Your task to perform on an android device: star an email in the gmail app Image 0: 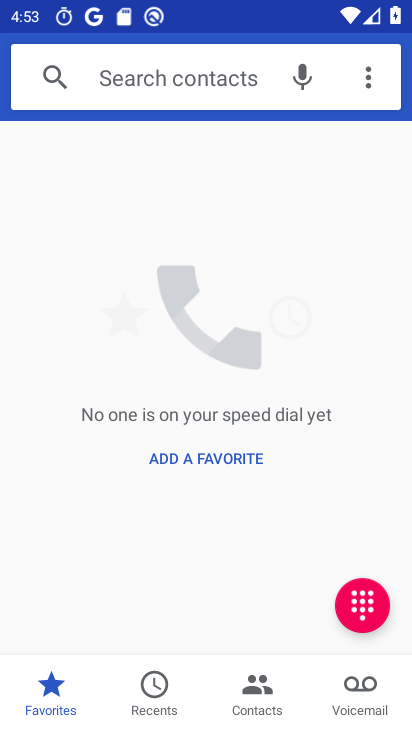
Step 0: press home button
Your task to perform on an android device: star an email in the gmail app Image 1: 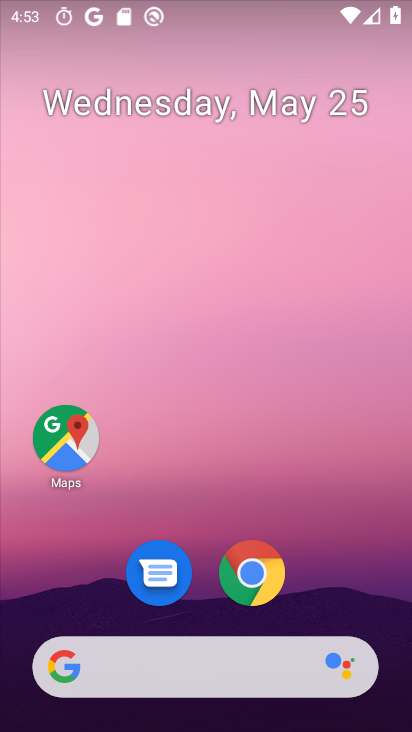
Step 1: drag from (219, 720) to (215, 133)
Your task to perform on an android device: star an email in the gmail app Image 2: 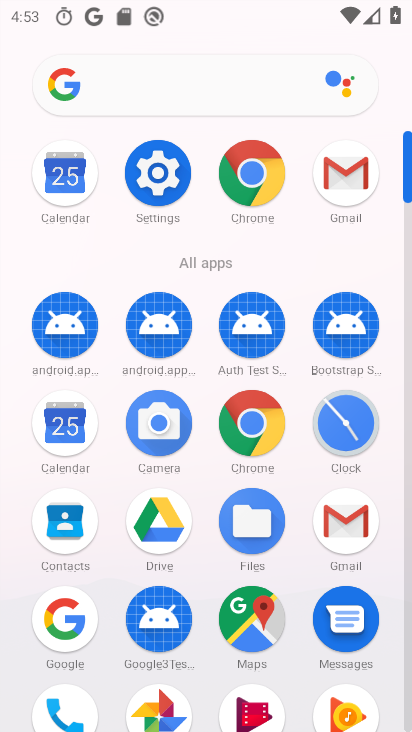
Step 2: click (354, 175)
Your task to perform on an android device: star an email in the gmail app Image 3: 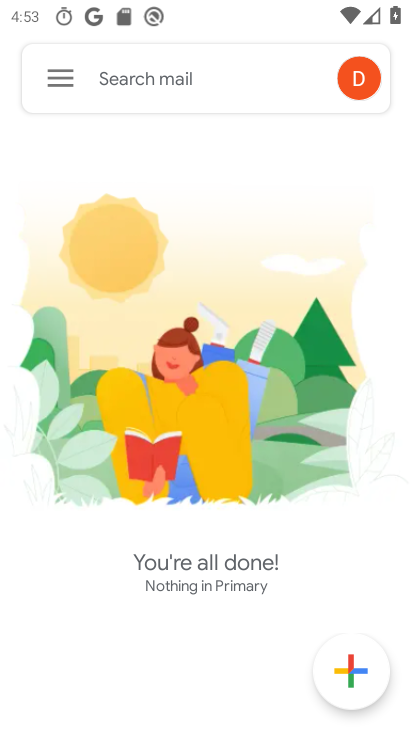
Step 3: click (61, 78)
Your task to perform on an android device: star an email in the gmail app Image 4: 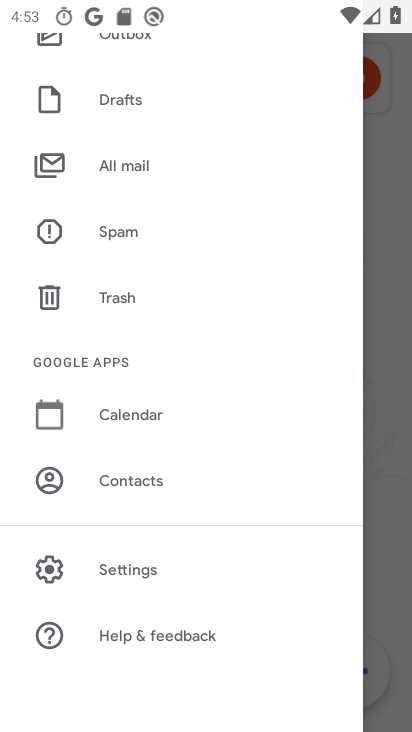
Step 4: drag from (192, 233) to (212, 669)
Your task to perform on an android device: star an email in the gmail app Image 5: 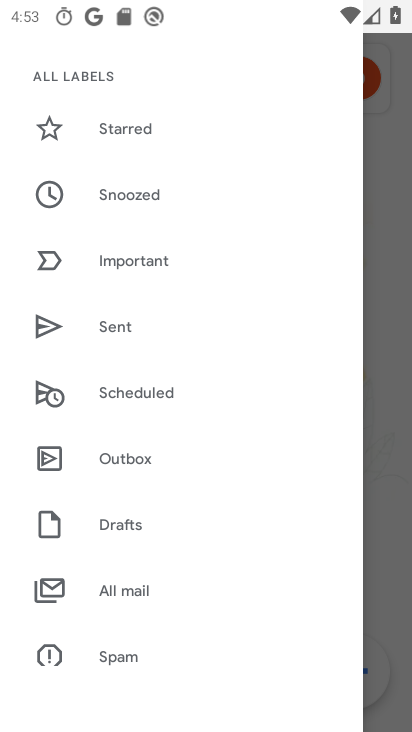
Step 5: drag from (181, 281) to (185, 625)
Your task to perform on an android device: star an email in the gmail app Image 6: 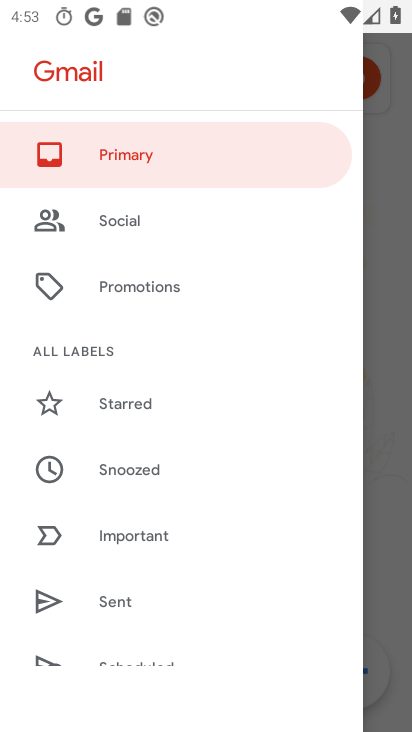
Step 6: click (113, 155)
Your task to perform on an android device: star an email in the gmail app Image 7: 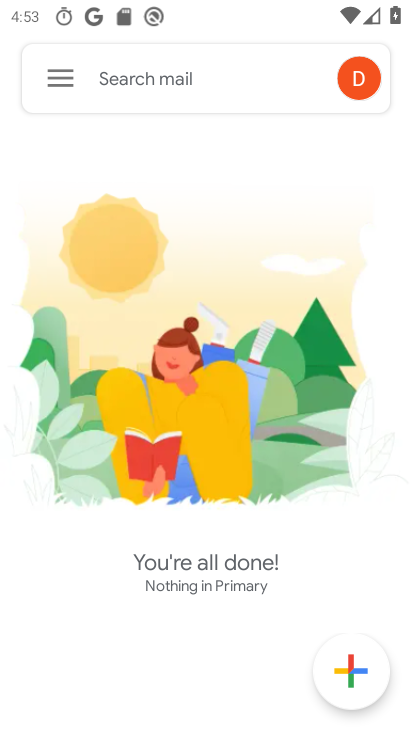
Step 7: task complete